Your task to perform on an android device: Is it going to rain this weekend? Image 0: 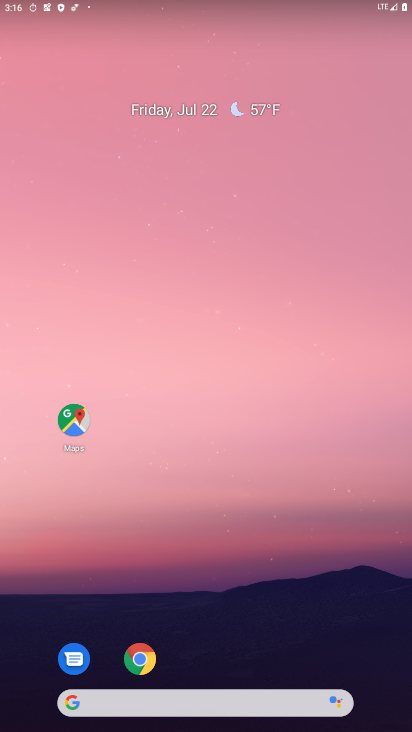
Step 0: click (140, 705)
Your task to perform on an android device: Is it going to rain this weekend? Image 1: 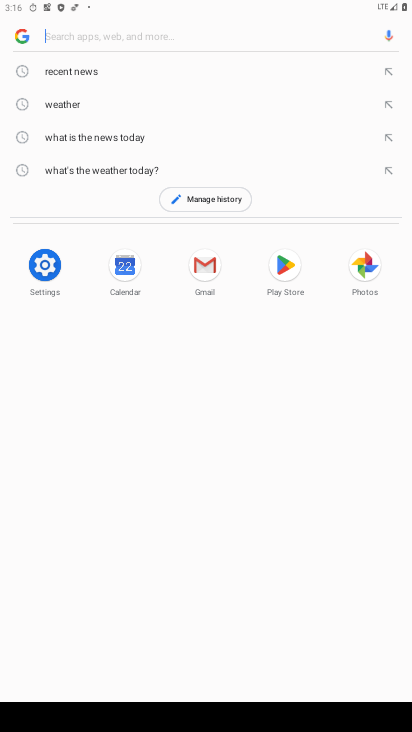
Step 1: type "is it going to rain this weekend"
Your task to perform on an android device: Is it going to rain this weekend? Image 2: 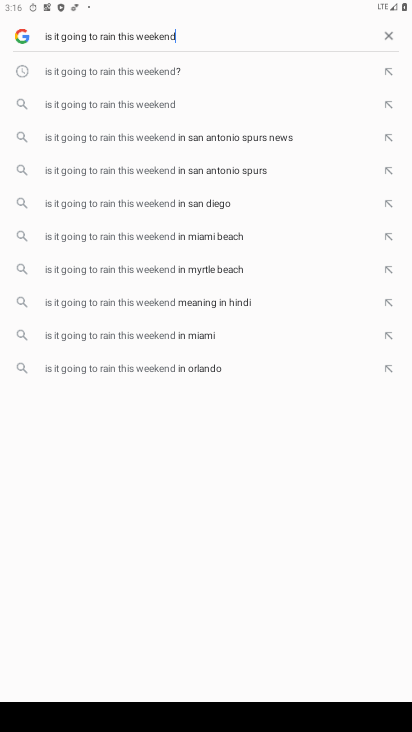
Step 2: click (214, 77)
Your task to perform on an android device: Is it going to rain this weekend? Image 3: 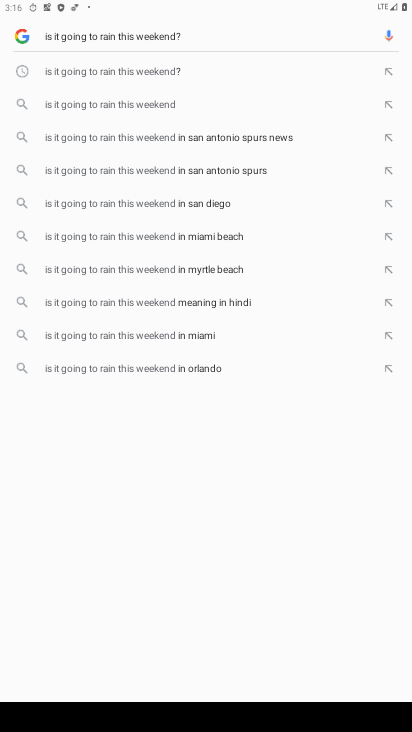
Step 3: click (214, 77)
Your task to perform on an android device: Is it going to rain this weekend? Image 4: 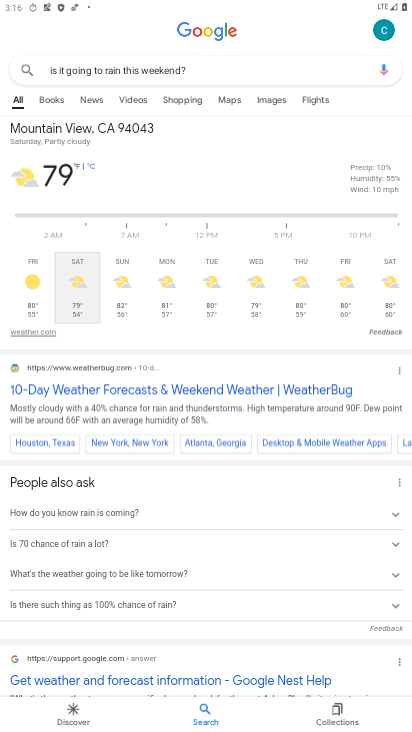
Step 4: task complete